Your task to perform on an android device: star an email in the gmail app Image 0: 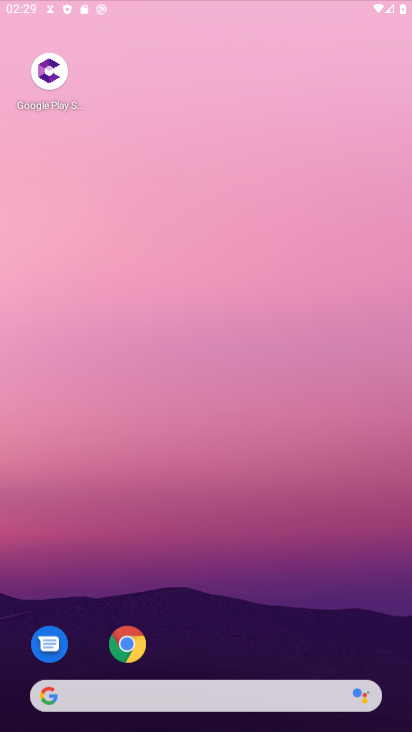
Step 0: click (155, 30)
Your task to perform on an android device: star an email in the gmail app Image 1: 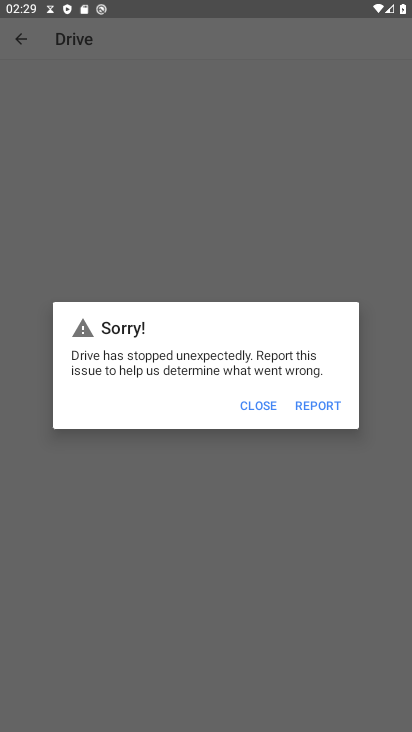
Step 1: click (259, 403)
Your task to perform on an android device: star an email in the gmail app Image 2: 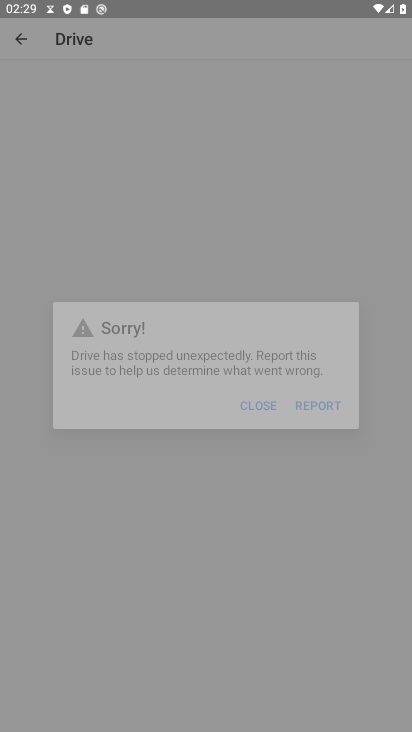
Step 2: click (264, 411)
Your task to perform on an android device: star an email in the gmail app Image 3: 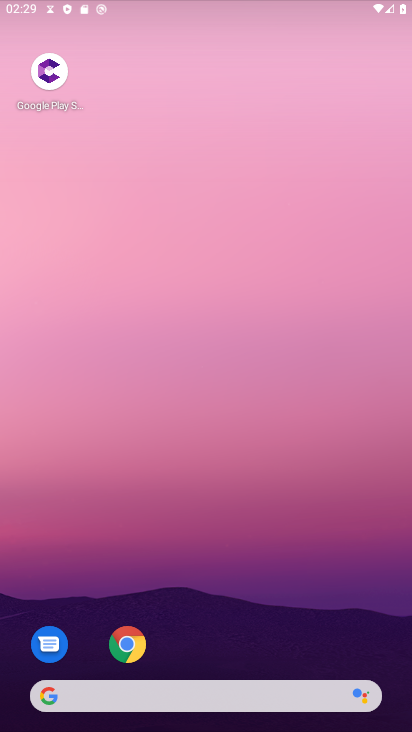
Step 3: drag from (227, 607) to (135, 128)
Your task to perform on an android device: star an email in the gmail app Image 4: 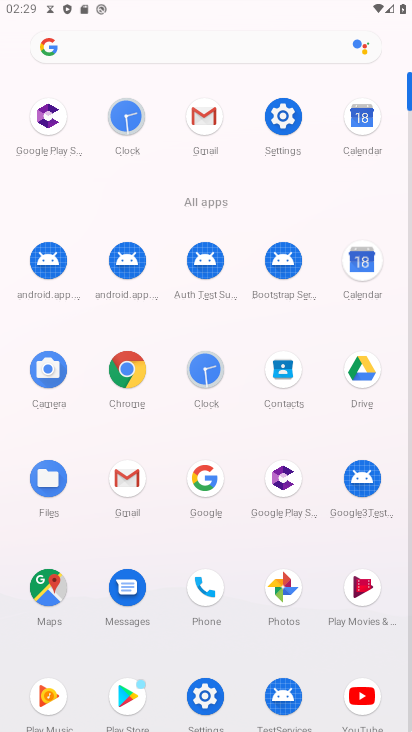
Step 4: click (128, 486)
Your task to perform on an android device: star an email in the gmail app Image 5: 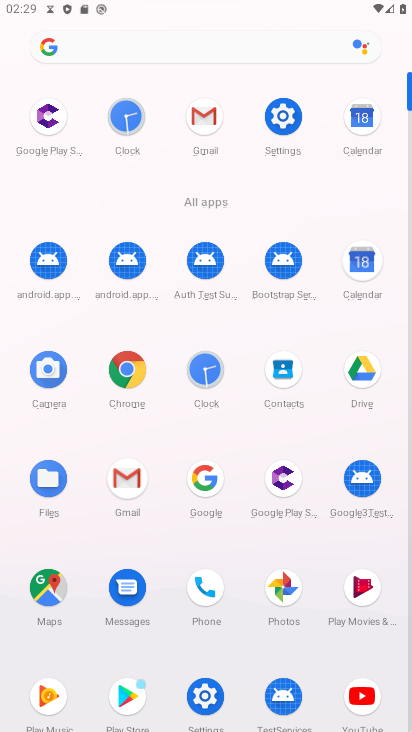
Step 5: click (128, 486)
Your task to perform on an android device: star an email in the gmail app Image 6: 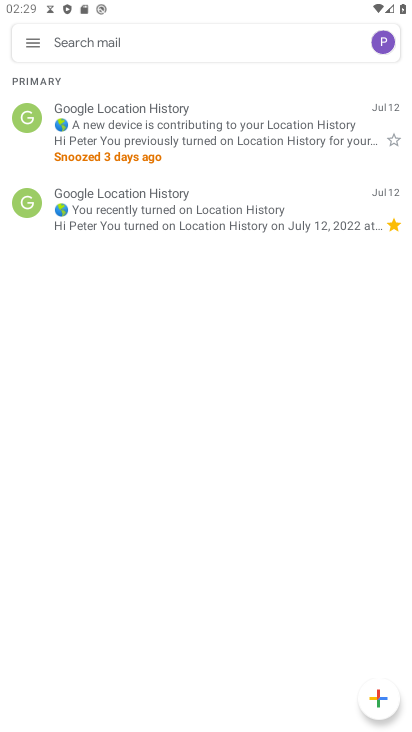
Step 6: click (389, 144)
Your task to perform on an android device: star an email in the gmail app Image 7: 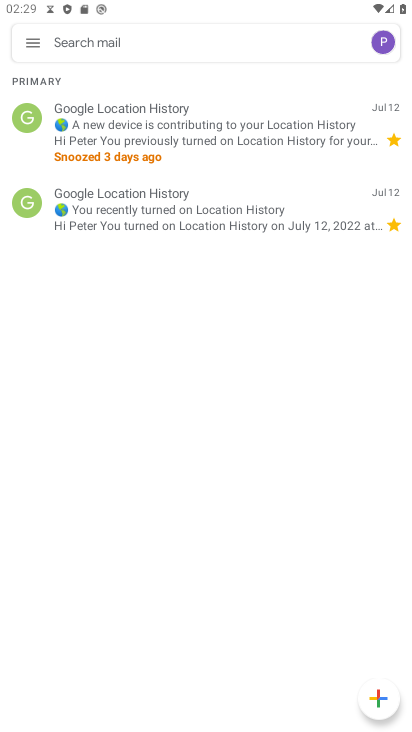
Step 7: task complete